Your task to perform on an android device: Is it going to rain today? Image 0: 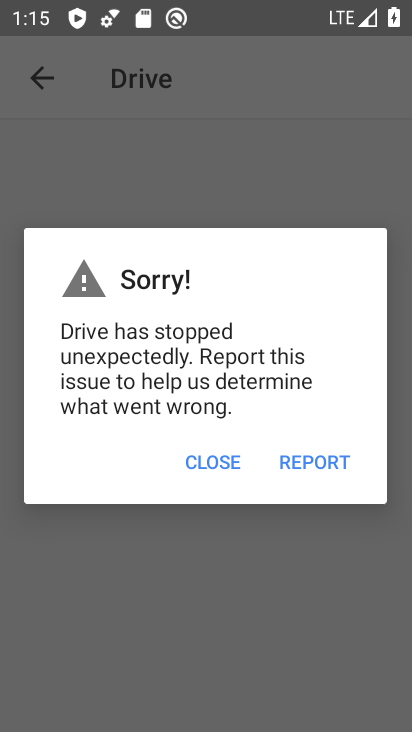
Step 0: click (204, 462)
Your task to perform on an android device: Is it going to rain today? Image 1: 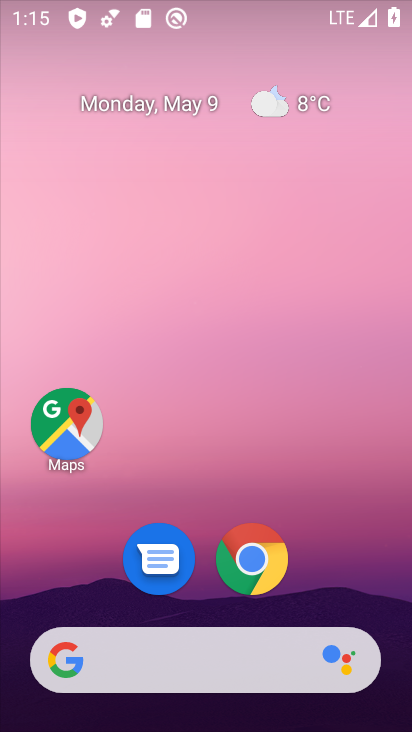
Step 1: press home button
Your task to perform on an android device: Is it going to rain today? Image 2: 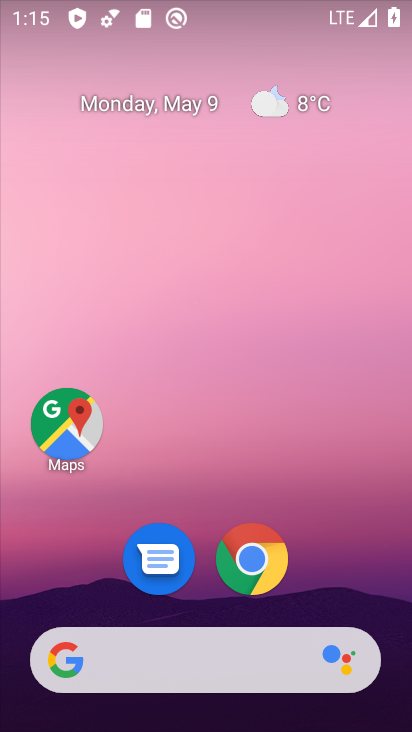
Step 2: click (183, 651)
Your task to perform on an android device: Is it going to rain today? Image 3: 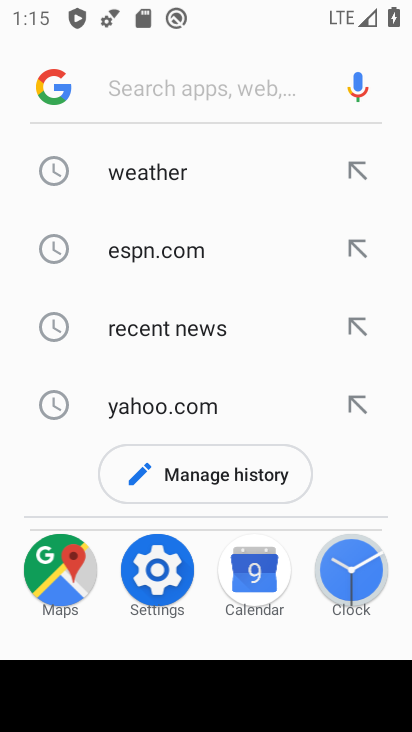
Step 3: click (143, 161)
Your task to perform on an android device: Is it going to rain today? Image 4: 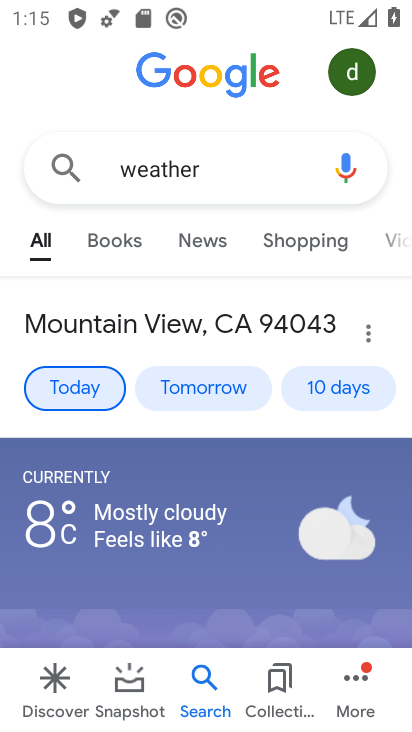
Step 4: task complete